Your task to perform on an android device: change keyboard looks Image 0: 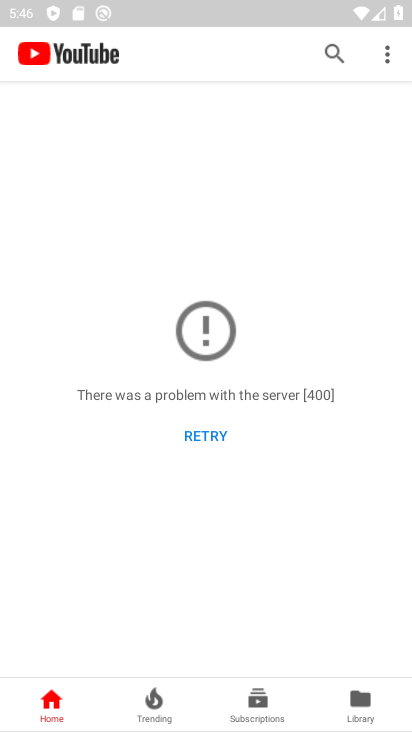
Step 0: press home button
Your task to perform on an android device: change keyboard looks Image 1: 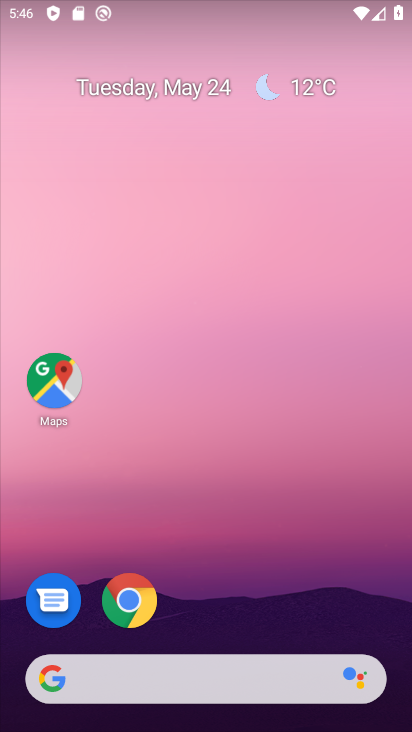
Step 1: drag from (310, 447) to (385, 5)
Your task to perform on an android device: change keyboard looks Image 2: 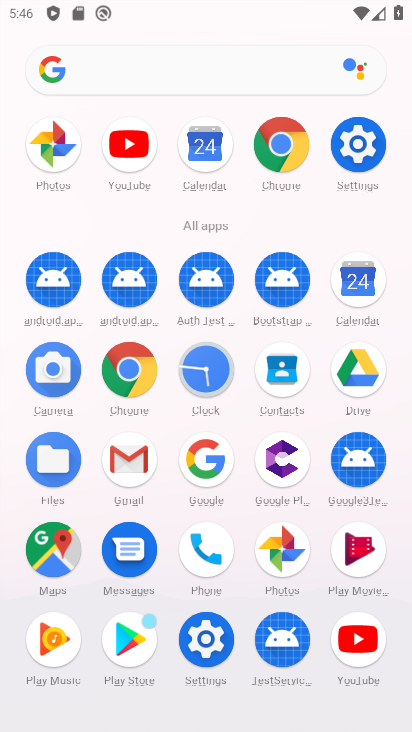
Step 2: click (343, 143)
Your task to perform on an android device: change keyboard looks Image 3: 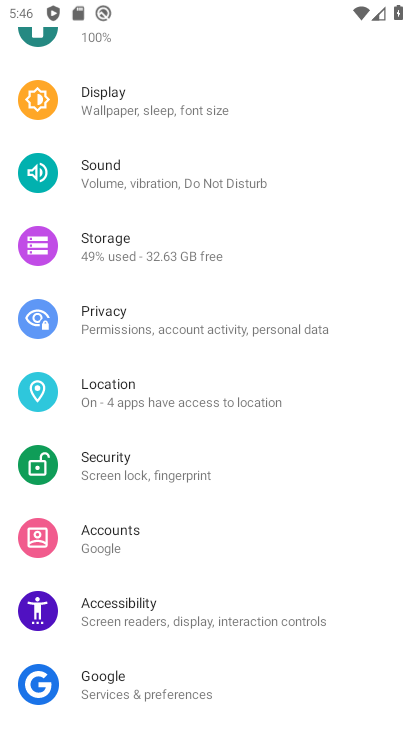
Step 3: drag from (168, 678) to (233, 63)
Your task to perform on an android device: change keyboard looks Image 4: 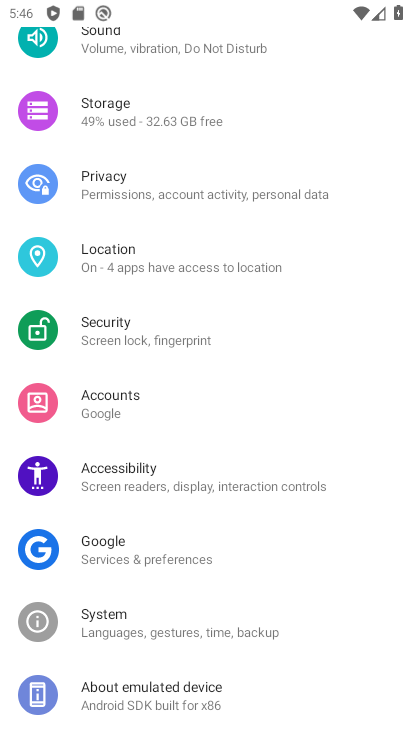
Step 4: click (165, 639)
Your task to perform on an android device: change keyboard looks Image 5: 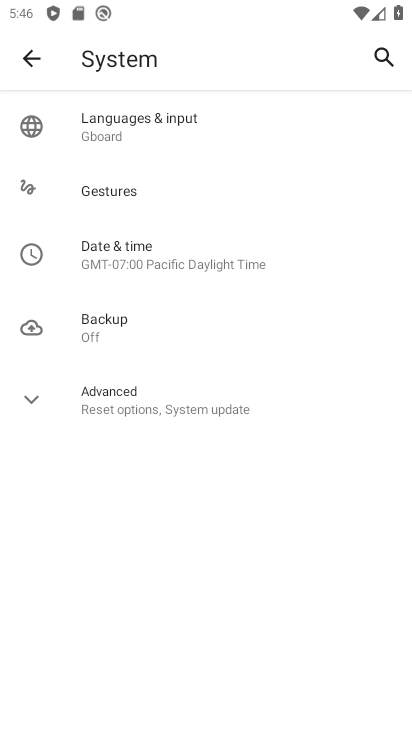
Step 5: click (129, 121)
Your task to perform on an android device: change keyboard looks Image 6: 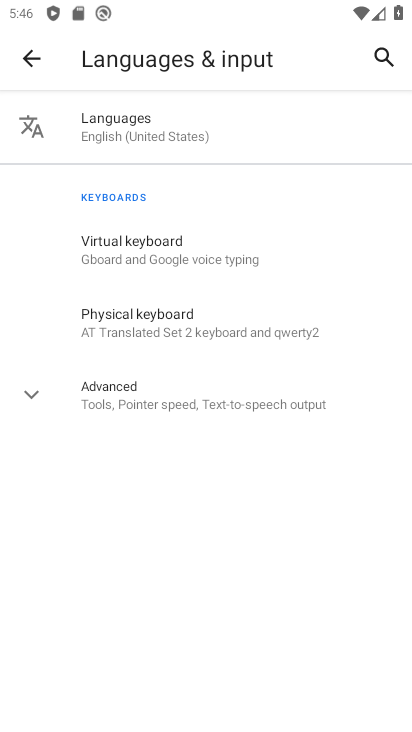
Step 6: click (104, 255)
Your task to perform on an android device: change keyboard looks Image 7: 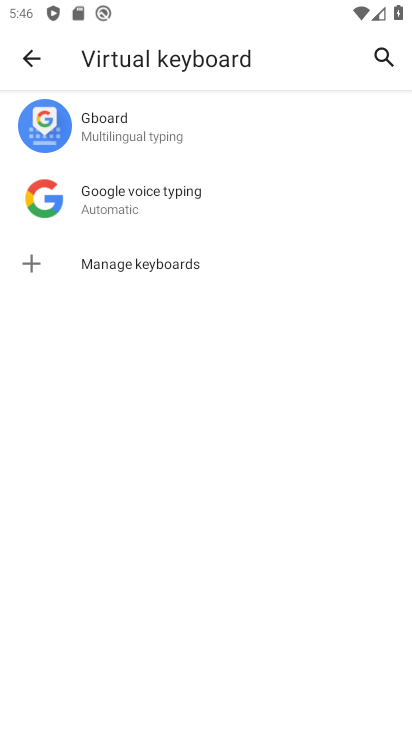
Step 7: click (92, 120)
Your task to perform on an android device: change keyboard looks Image 8: 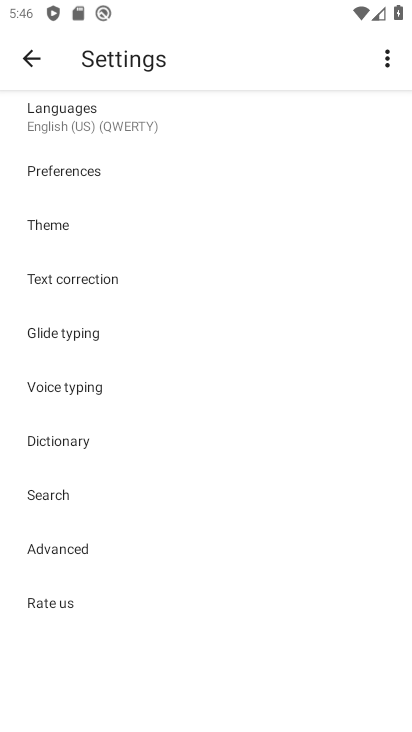
Step 8: click (43, 224)
Your task to perform on an android device: change keyboard looks Image 9: 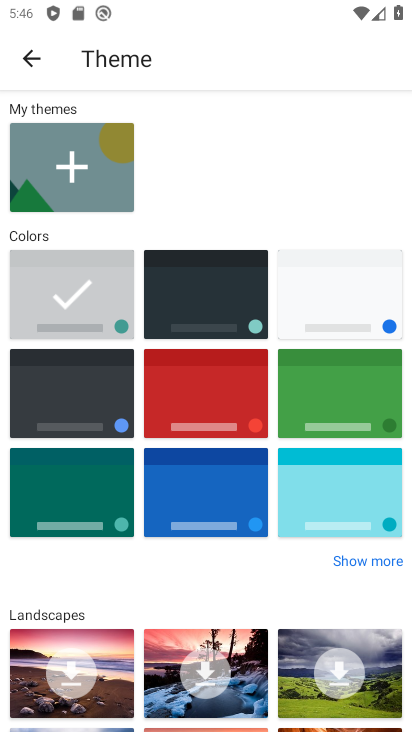
Step 9: click (204, 290)
Your task to perform on an android device: change keyboard looks Image 10: 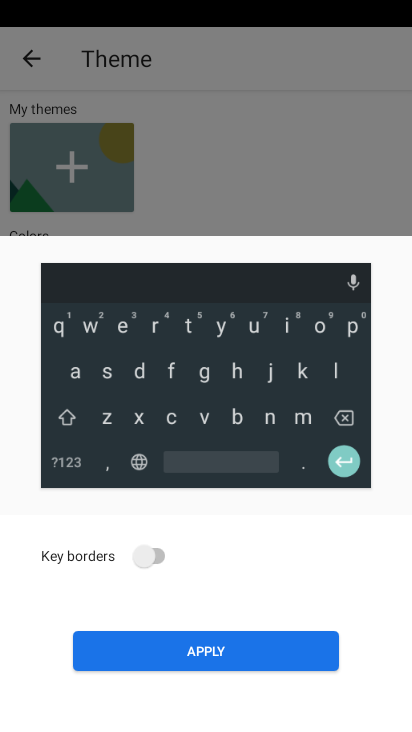
Step 10: click (230, 654)
Your task to perform on an android device: change keyboard looks Image 11: 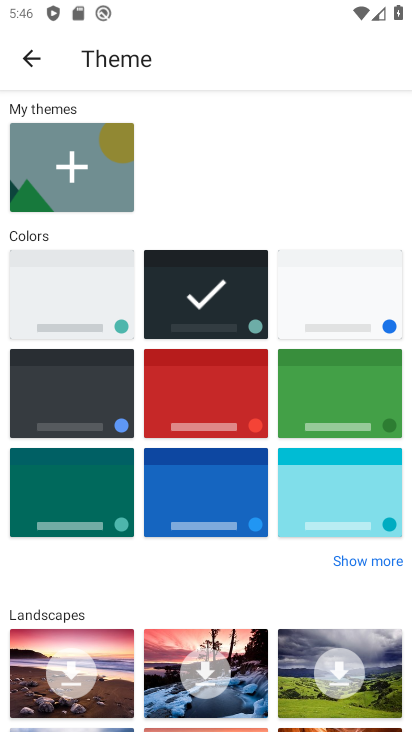
Step 11: task complete